Your task to perform on an android device: Check the news Image 0: 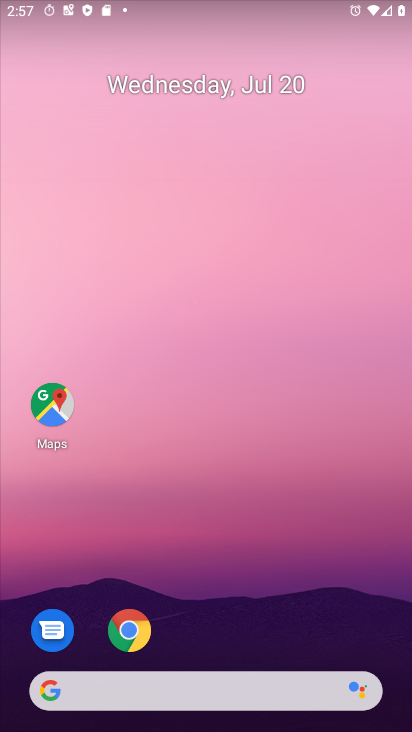
Step 0: press home button
Your task to perform on an android device: Check the news Image 1: 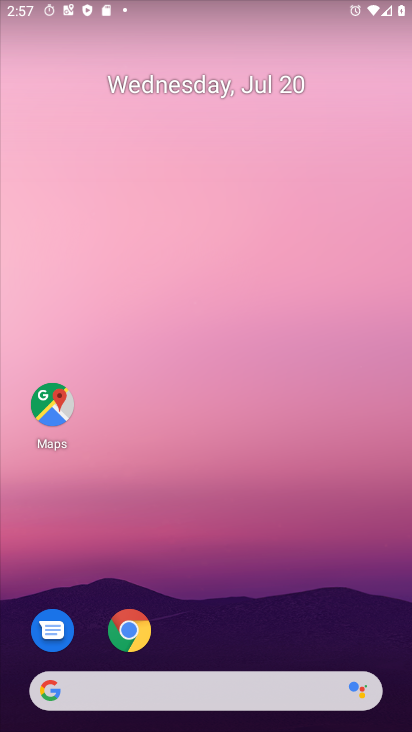
Step 1: click (153, 685)
Your task to perform on an android device: Check the news Image 2: 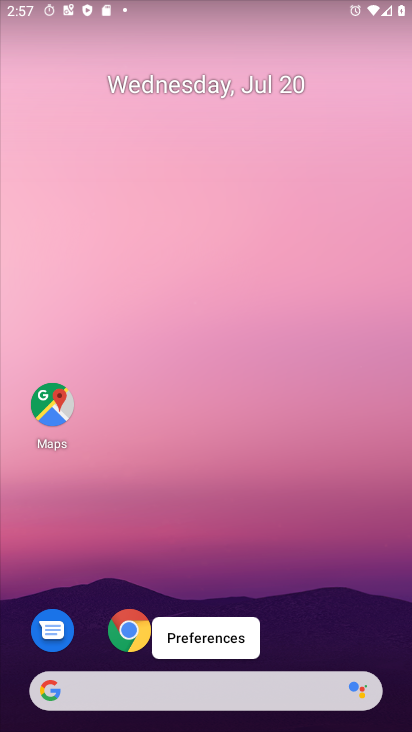
Step 2: click (164, 673)
Your task to perform on an android device: Check the news Image 3: 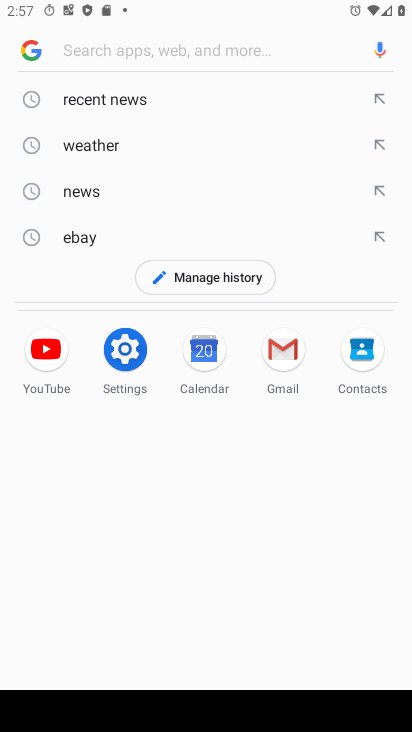
Step 3: click (84, 198)
Your task to perform on an android device: Check the news Image 4: 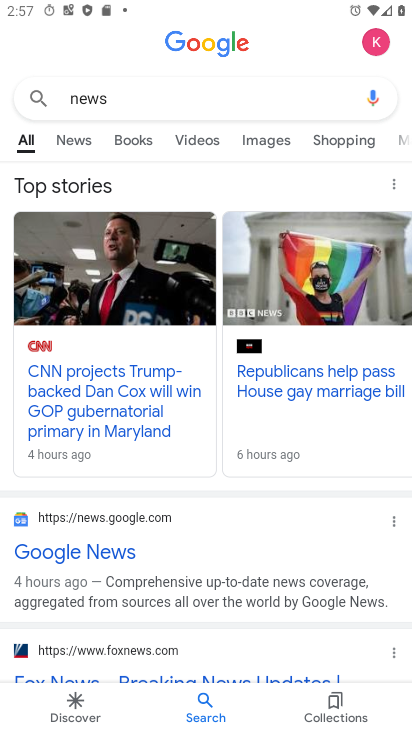
Step 4: click (79, 140)
Your task to perform on an android device: Check the news Image 5: 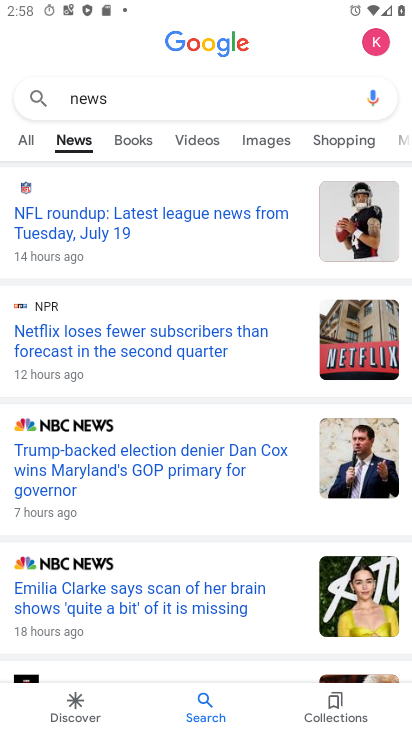
Step 5: task complete